Your task to perform on an android device: Show me recent news Image 0: 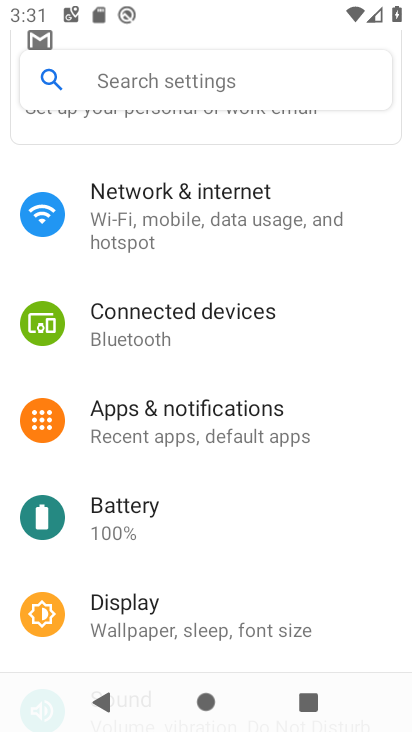
Step 0: press home button
Your task to perform on an android device: Show me recent news Image 1: 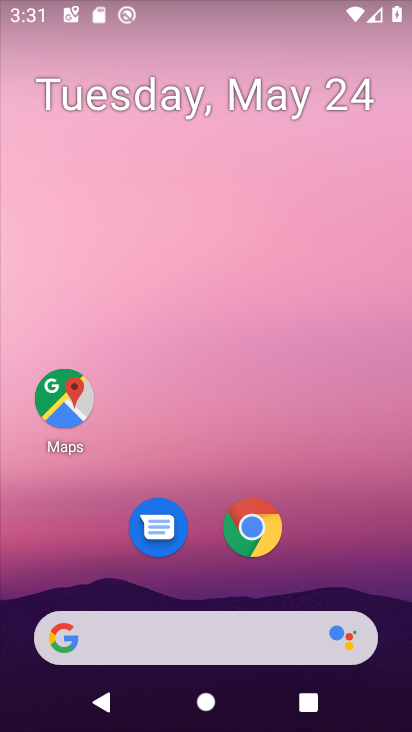
Step 1: click (102, 639)
Your task to perform on an android device: Show me recent news Image 2: 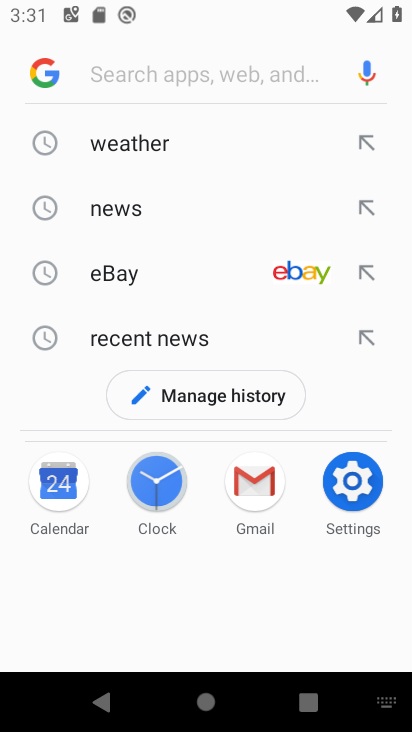
Step 2: click (135, 342)
Your task to perform on an android device: Show me recent news Image 3: 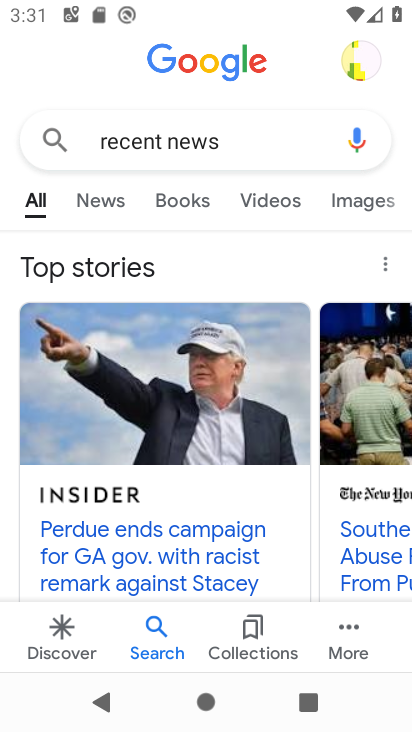
Step 3: click (97, 201)
Your task to perform on an android device: Show me recent news Image 4: 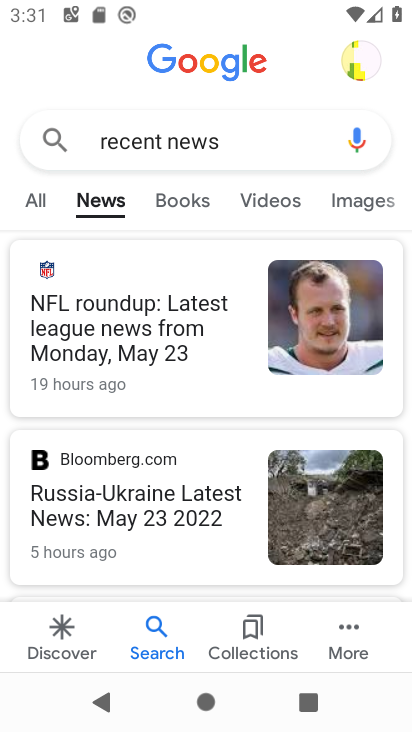
Step 4: drag from (145, 470) to (150, 220)
Your task to perform on an android device: Show me recent news Image 5: 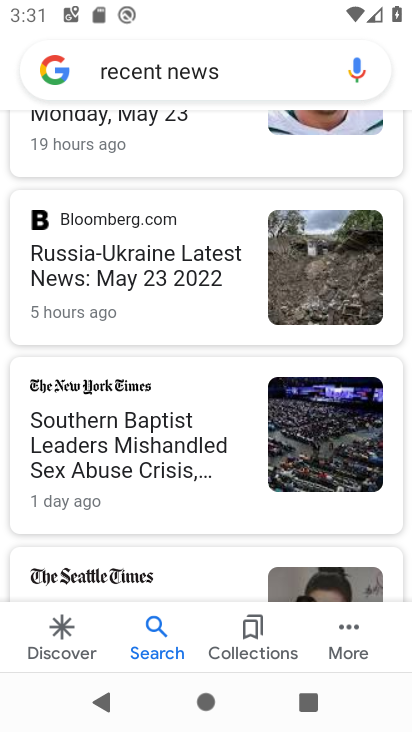
Step 5: drag from (133, 428) to (147, 95)
Your task to perform on an android device: Show me recent news Image 6: 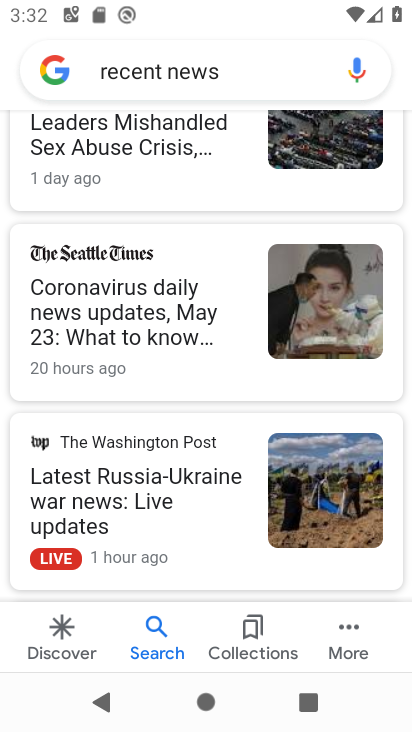
Step 6: click (125, 509)
Your task to perform on an android device: Show me recent news Image 7: 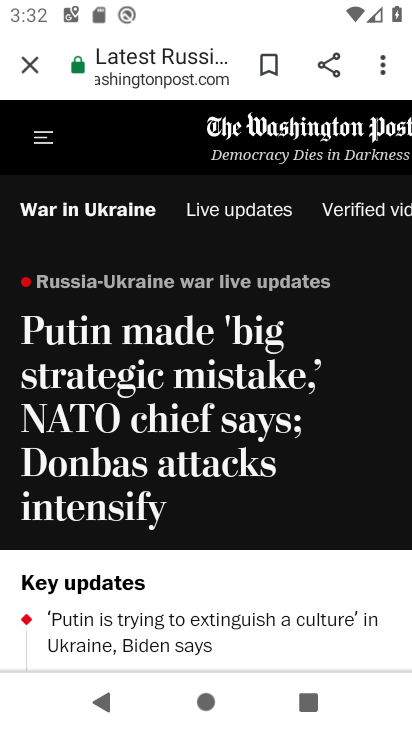
Step 7: task complete